Your task to perform on an android device: turn off priority inbox in the gmail app Image 0: 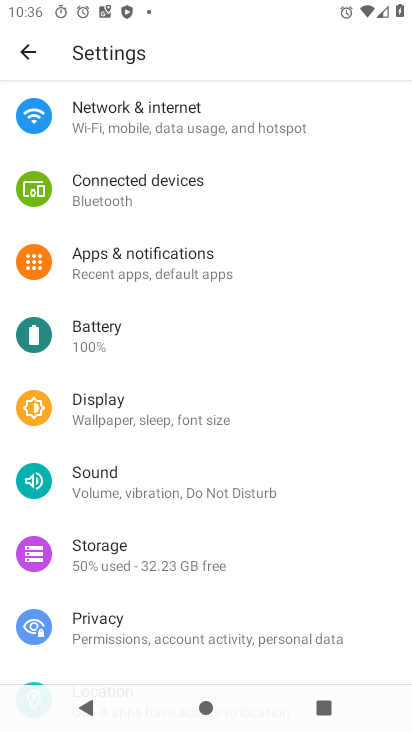
Step 0: press home button
Your task to perform on an android device: turn off priority inbox in the gmail app Image 1: 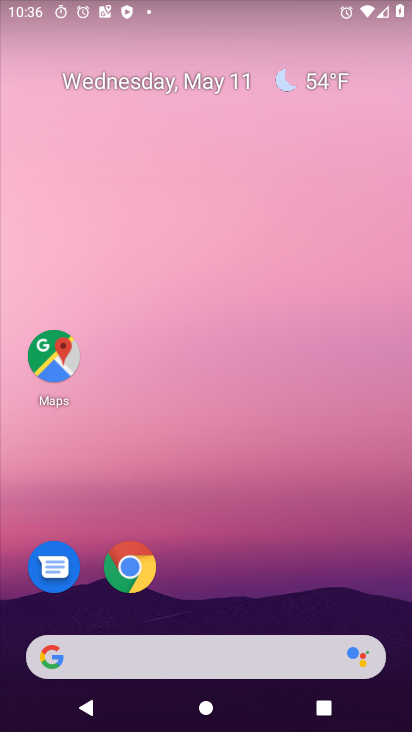
Step 1: drag from (224, 589) to (181, 15)
Your task to perform on an android device: turn off priority inbox in the gmail app Image 2: 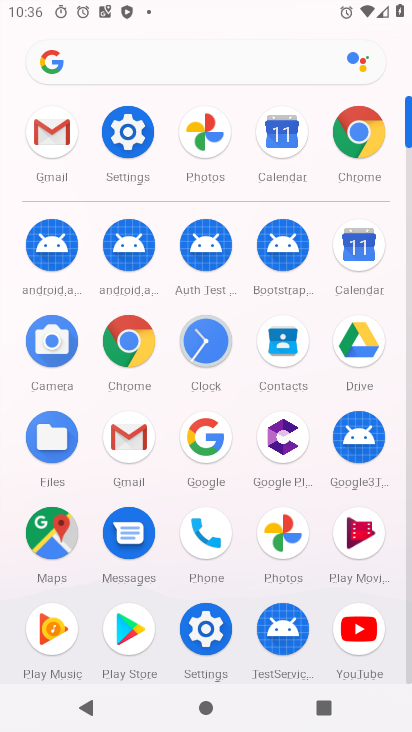
Step 2: click (124, 461)
Your task to perform on an android device: turn off priority inbox in the gmail app Image 3: 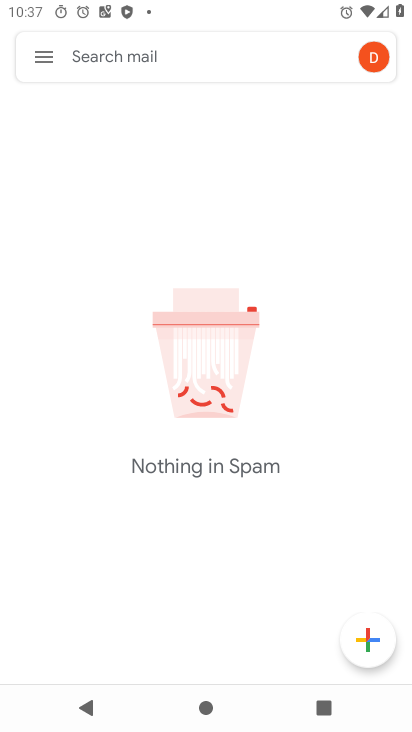
Step 3: click (41, 57)
Your task to perform on an android device: turn off priority inbox in the gmail app Image 4: 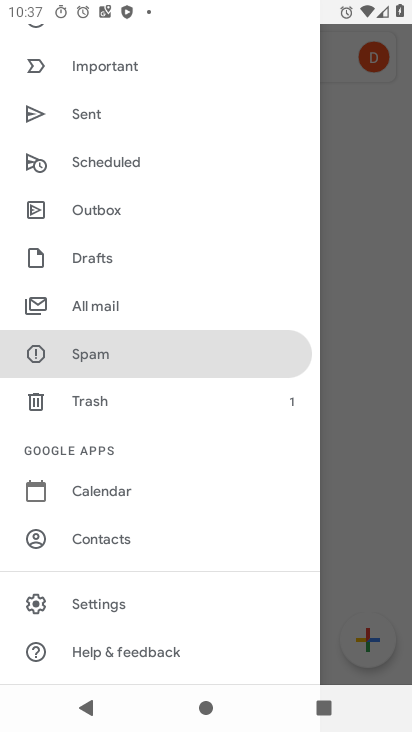
Step 4: click (120, 616)
Your task to perform on an android device: turn off priority inbox in the gmail app Image 5: 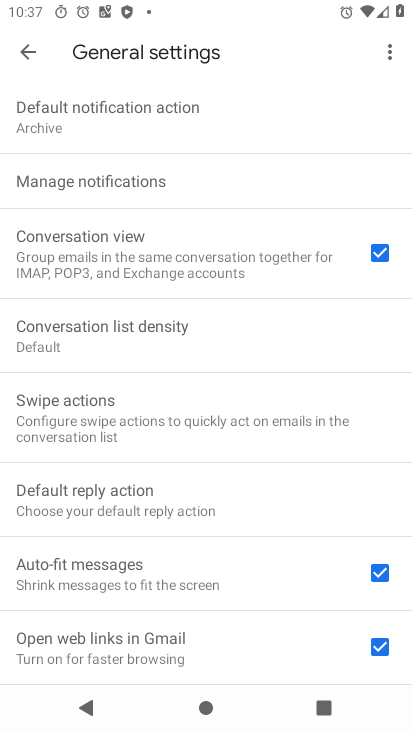
Step 5: click (22, 63)
Your task to perform on an android device: turn off priority inbox in the gmail app Image 6: 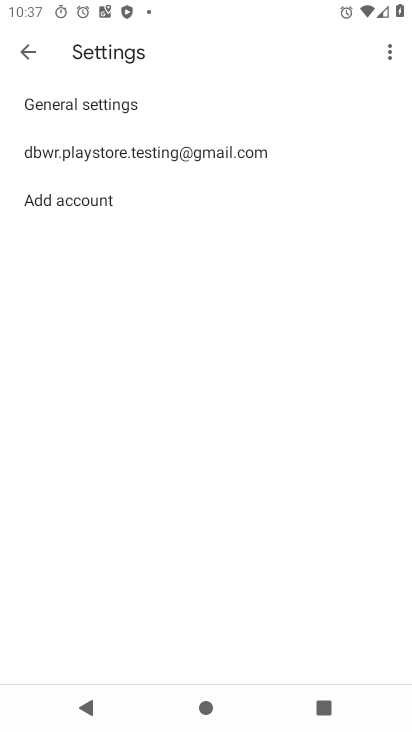
Step 6: click (122, 155)
Your task to perform on an android device: turn off priority inbox in the gmail app Image 7: 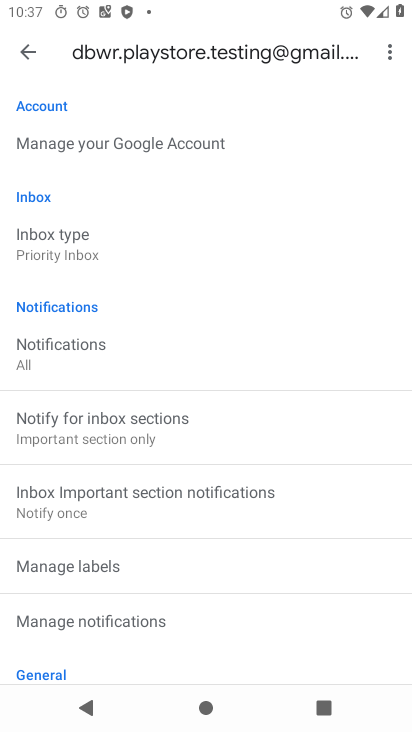
Step 7: click (77, 243)
Your task to perform on an android device: turn off priority inbox in the gmail app Image 8: 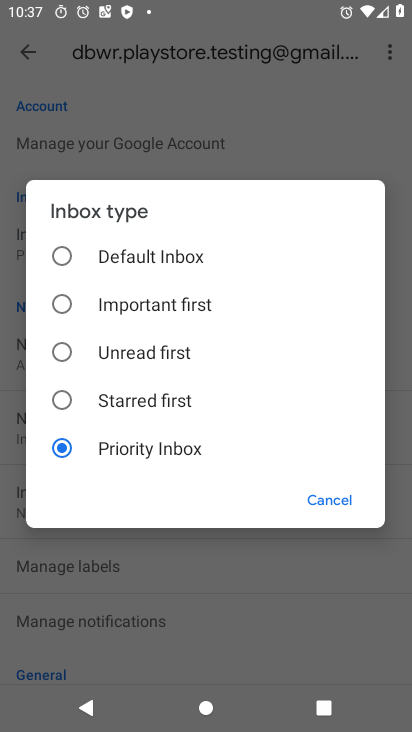
Step 8: click (65, 256)
Your task to perform on an android device: turn off priority inbox in the gmail app Image 9: 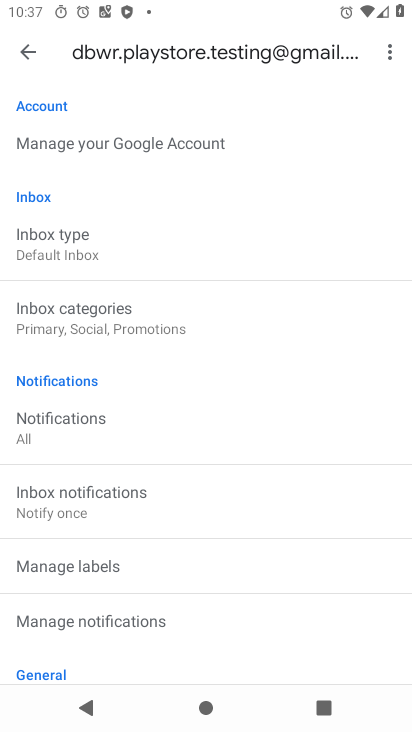
Step 9: task complete